Your task to perform on an android device: Search for Mexican restaurants on Maps Image 0: 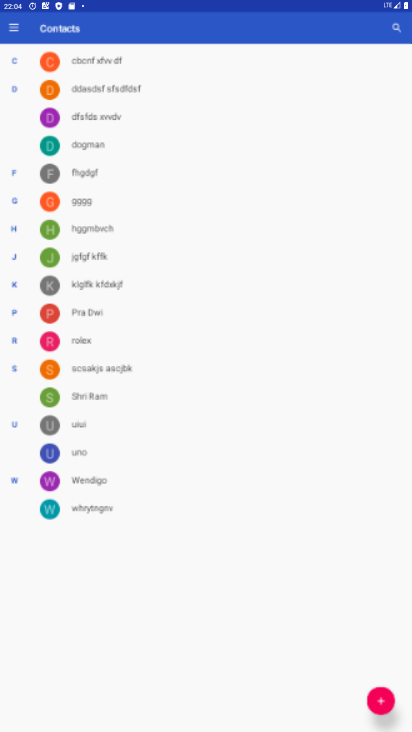
Step 0: drag from (173, 690) to (254, 81)
Your task to perform on an android device: Search for Mexican restaurants on Maps Image 1: 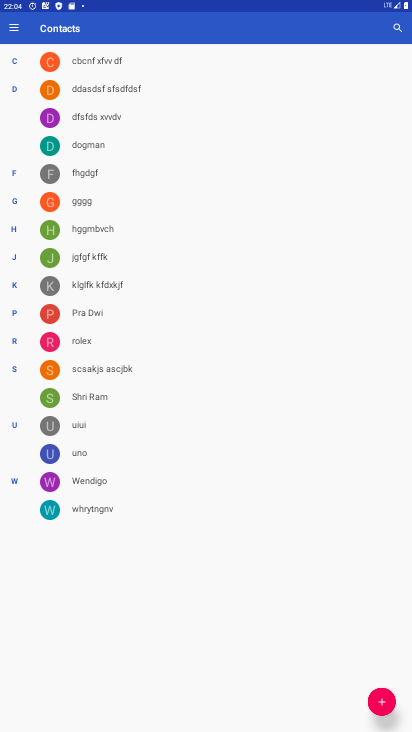
Step 1: press home button
Your task to perform on an android device: Search for Mexican restaurants on Maps Image 2: 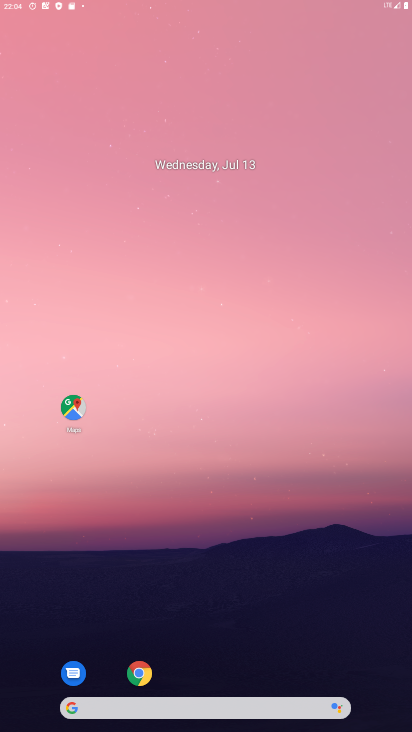
Step 2: drag from (206, 636) to (201, 51)
Your task to perform on an android device: Search for Mexican restaurants on Maps Image 3: 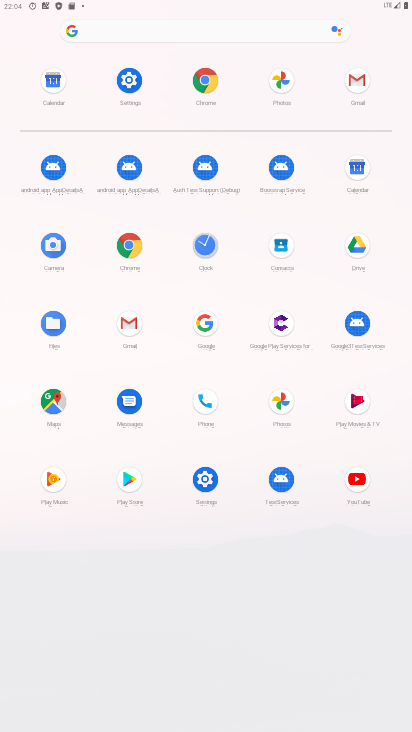
Step 3: drag from (206, 546) to (221, 328)
Your task to perform on an android device: Search for Mexican restaurants on Maps Image 4: 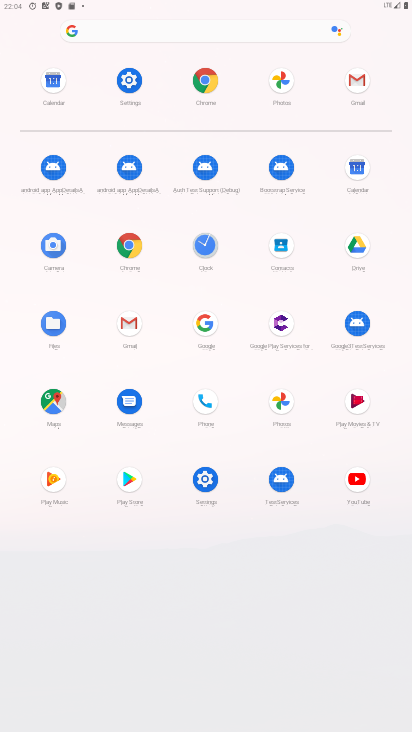
Step 4: drag from (248, 651) to (283, 265)
Your task to perform on an android device: Search for Mexican restaurants on Maps Image 5: 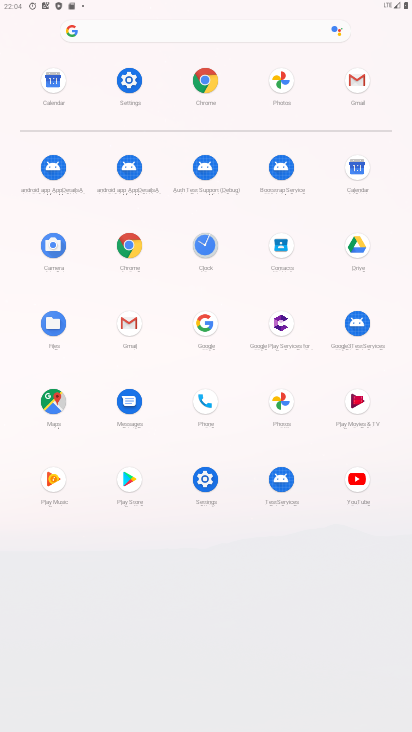
Step 5: drag from (256, 584) to (254, 419)
Your task to perform on an android device: Search for Mexican restaurants on Maps Image 6: 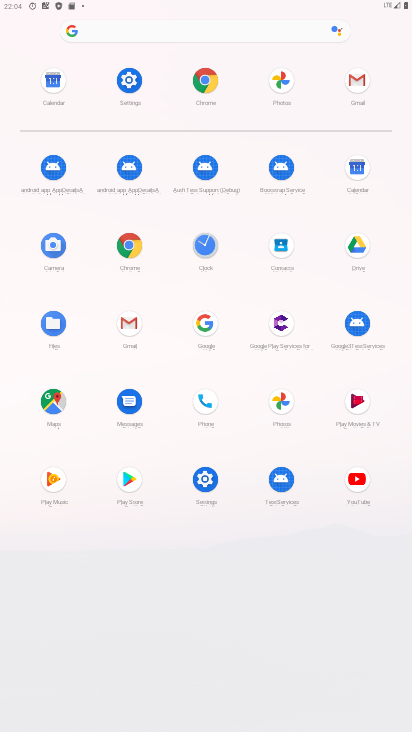
Step 6: drag from (240, 197) to (219, 652)
Your task to perform on an android device: Search for Mexican restaurants on Maps Image 7: 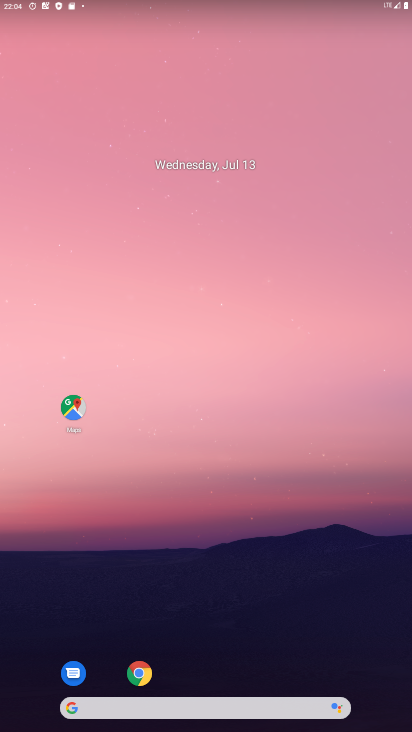
Step 7: drag from (192, 666) to (266, 162)
Your task to perform on an android device: Search for Mexican restaurants on Maps Image 8: 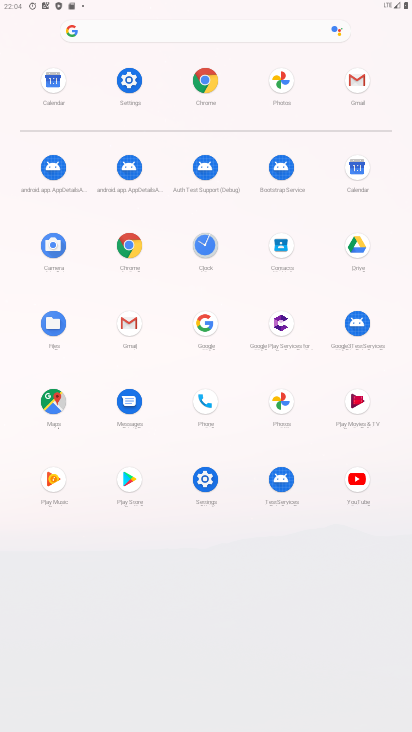
Step 8: drag from (239, 523) to (262, 163)
Your task to perform on an android device: Search for Mexican restaurants on Maps Image 9: 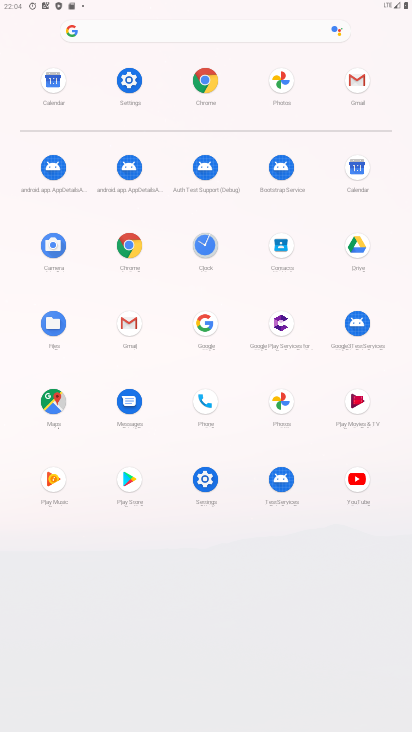
Step 9: drag from (241, 519) to (246, 259)
Your task to perform on an android device: Search for Mexican restaurants on Maps Image 10: 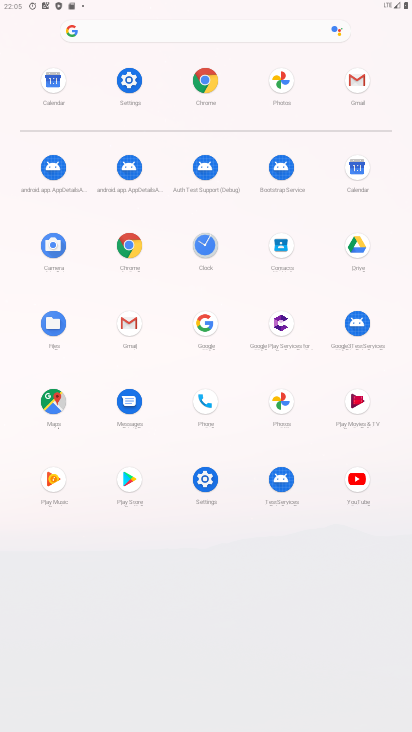
Step 10: drag from (260, 496) to (260, 193)
Your task to perform on an android device: Search for Mexican restaurants on Maps Image 11: 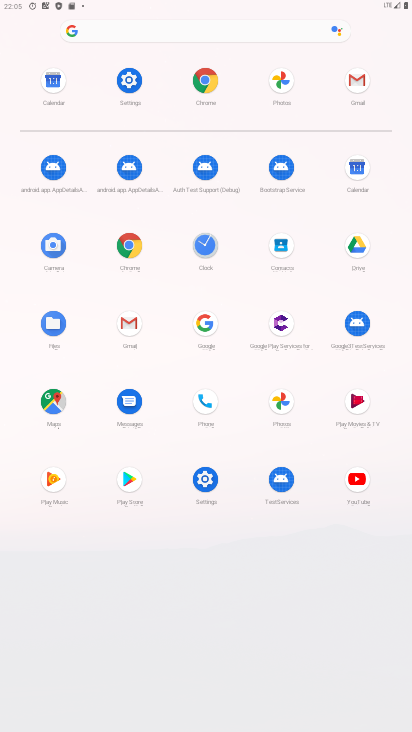
Step 11: drag from (320, 516) to (329, 222)
Your task to perform on an android device: Search for Mexican restaurants on Maps Image 12: 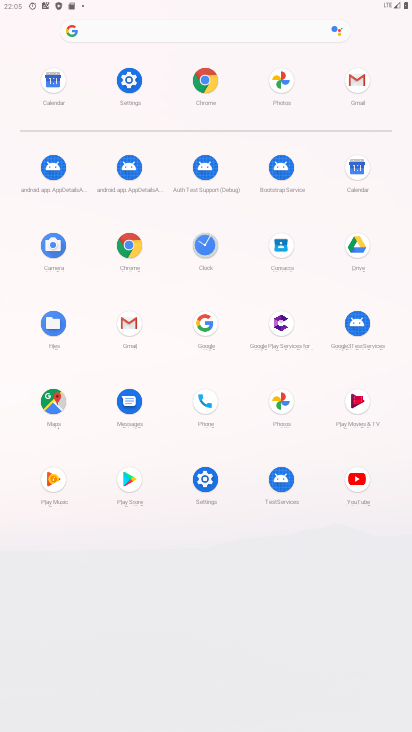
Step 12: click (51, 396)
Your task to perform on an android device: Search for Mexican restaurants on Maps Image 13: 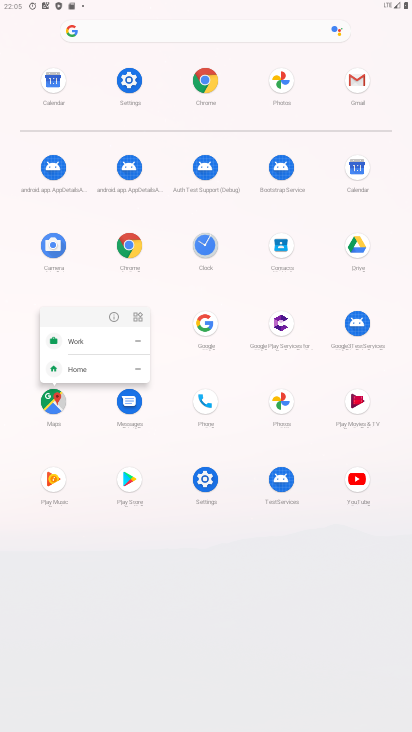
Step 13: click (113, 315)
Your task to perform on an android device: Search for Mexican restaurants on Maps Image 14: 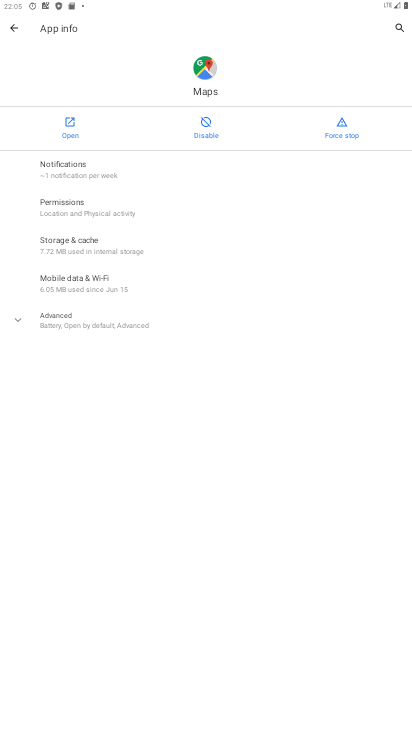
Step 14: click (63, 125)
Your task to perform on an android device: Search for Mexican restaurants on Maps Image 15: 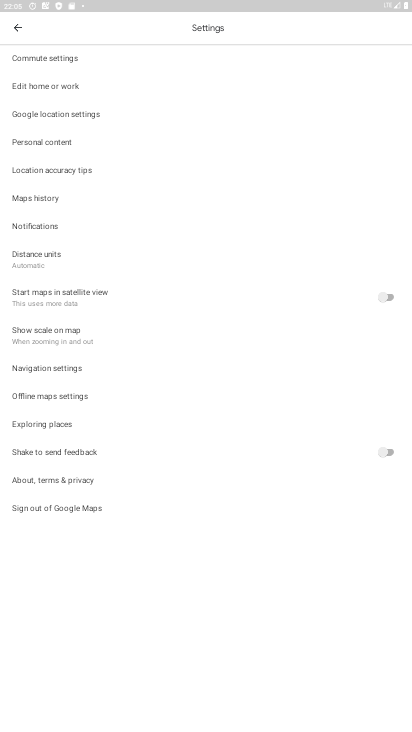
Step 15: click (14, 25)
Your task to perform on an android device: Search for Mexican restaurants on Maps Image 16: 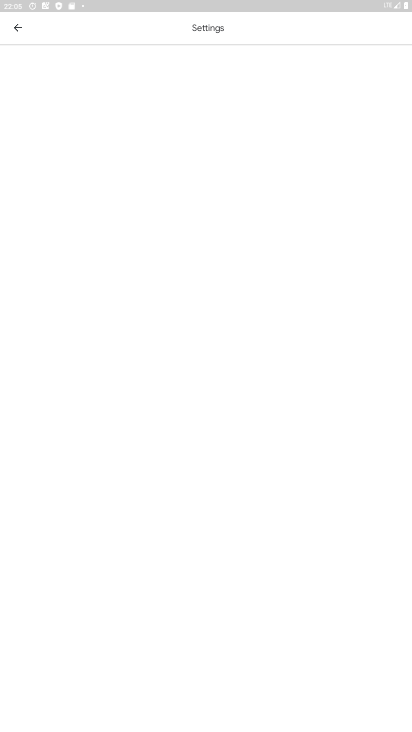
Step 16: press back button
Your task to perform on an android device: Search for Mexican restaurants on Maps Image 17: 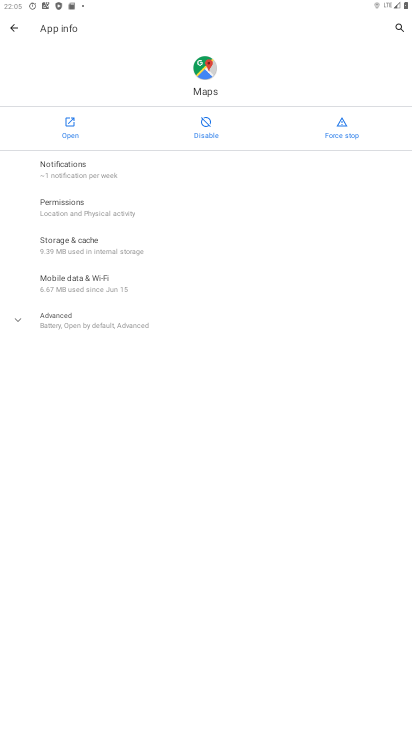
Step 17: click (72, 31)
Your task to perform on an android device: Search for Mexican restaurants on Maps Image 18: 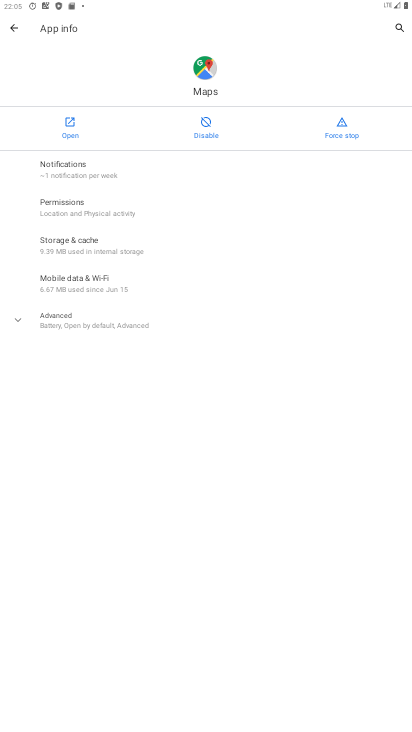
Step 18: click (78, 120)
Your task to perform on an android device: Search for Mexican restaurants on Maps Image 19: 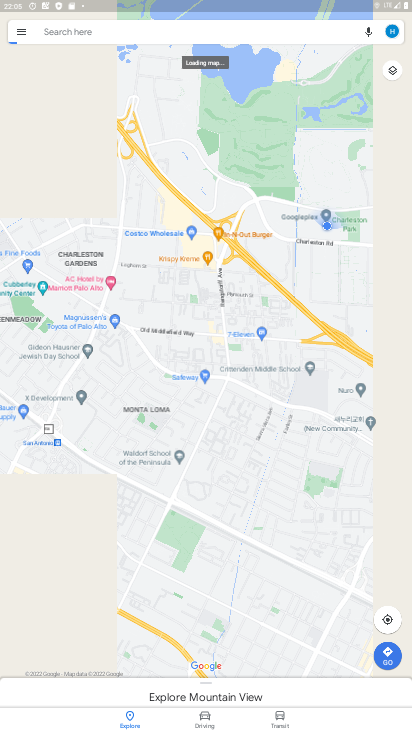
Step 19: click (143, 22)
Your task to perform on an android device: Search for Mexican restaurants on Maps Image 20: 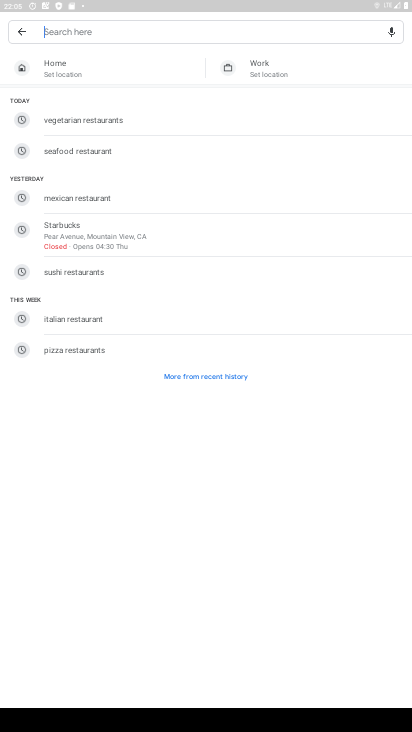
Step 20: click (53, 199)
Your task to perform on an android device: Search for Mexican restaurants on Maps Image 21: 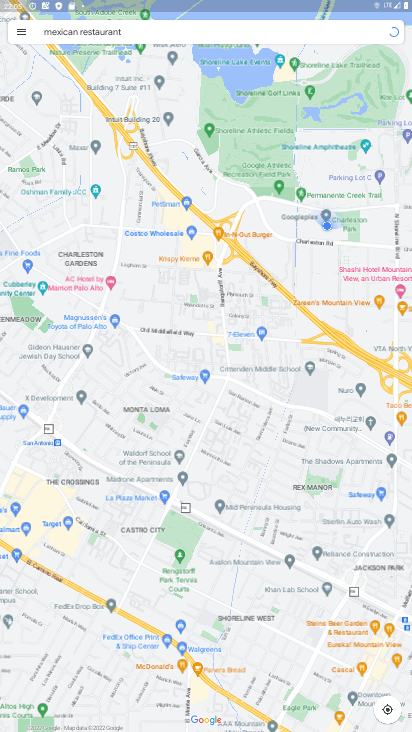
Step 21: task complete